Your task to perform on an android device: change text size in settings app Image 0: 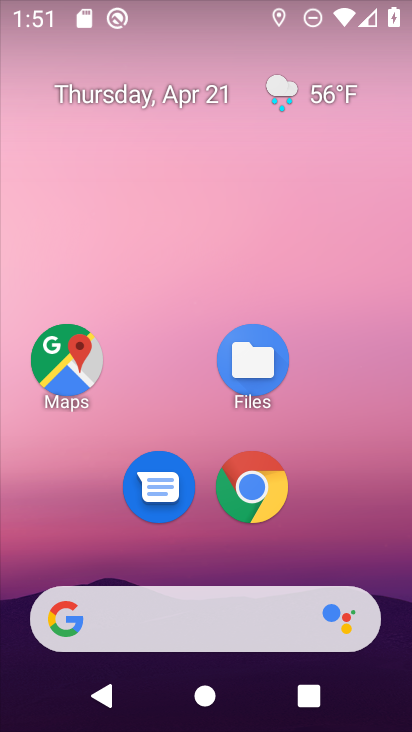
Step 0: drag from (351, 510) to (348, 89)
Your task to perform on an android device: change text size in settings app Image 1: 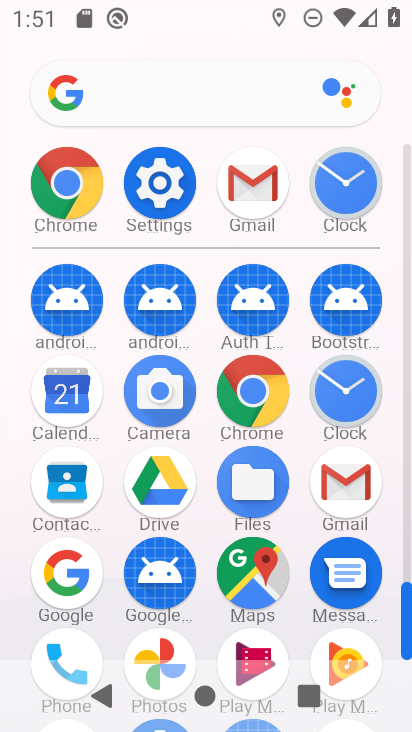
Step 1: click (160, 170)
Your task to perform on an android device: change text size in settings app Image 2: 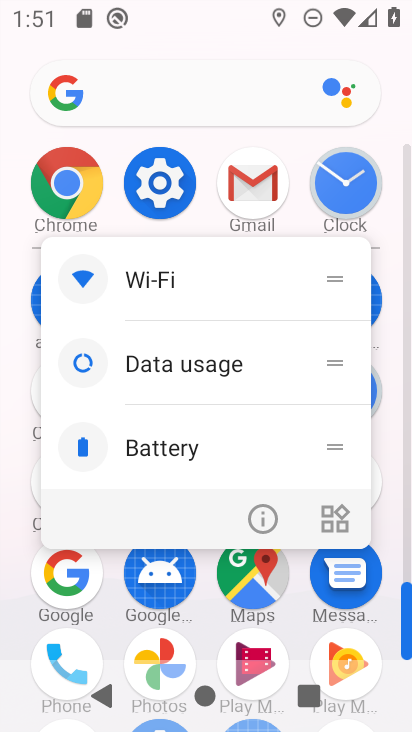
Step 2: click (150, 170)
Your task to perform on an android device: change text size in settings app Image 3: 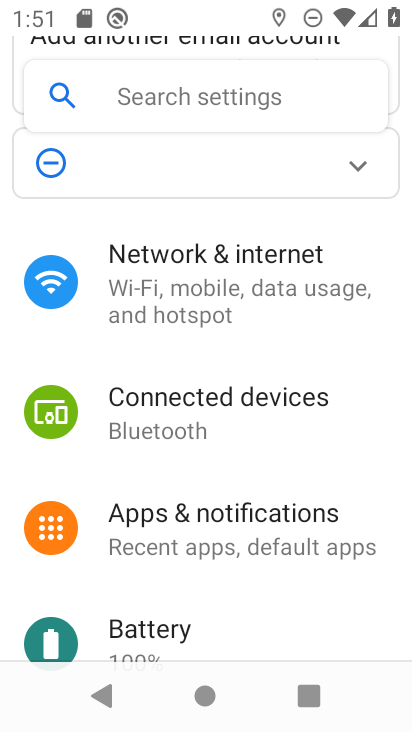
Step 3: drag from (272, 603) to (299, 311)
Your task to perform on an android device: change text size in settings app Image 4: 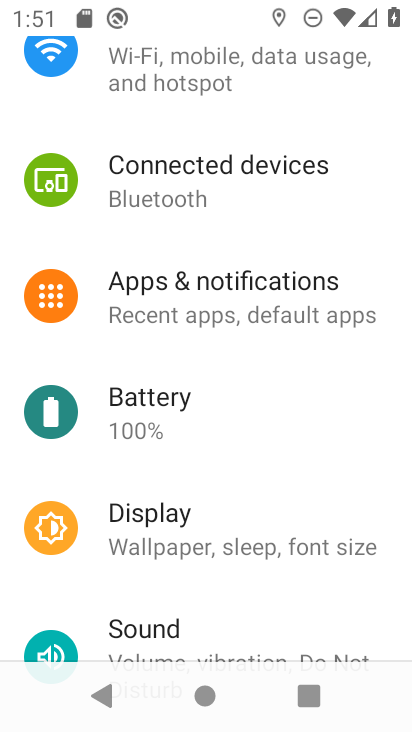
Step 4: click (190, 533)
Your task to perform on an android device: change text size in settings app Image 5: 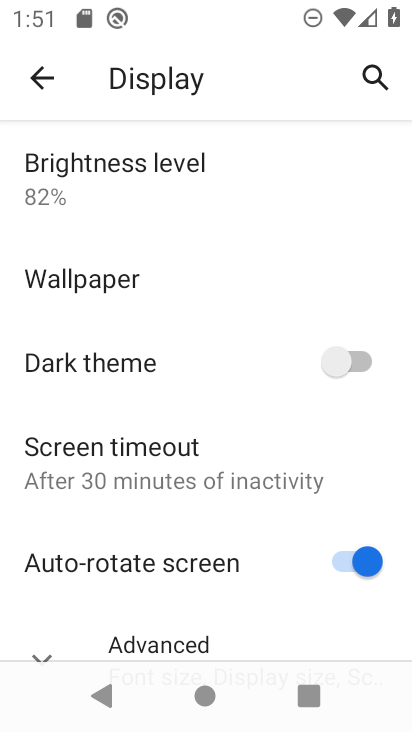
Step 5: drag from (201, 591) to (237, 218)
Your task to perform on an android device: change text size in settings app Image 6: 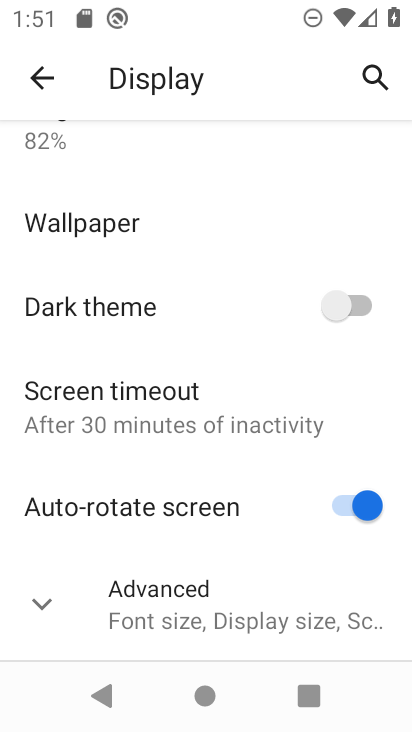
Step 6: click (200, 598)
Your task to perform on an android device: change text size in settings app Image 7: 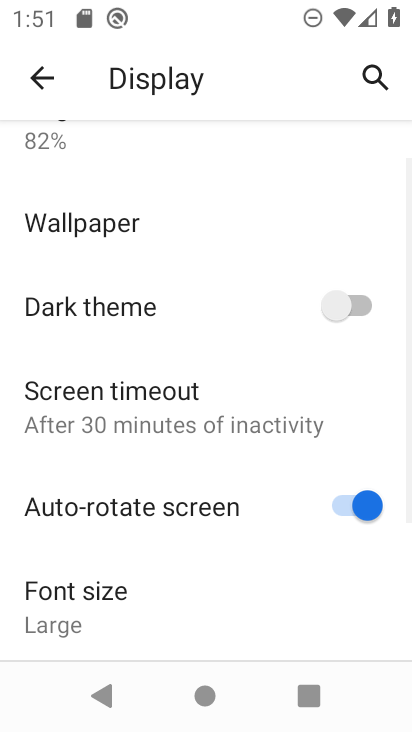
Step 7: click (62, 609)
Your task to perform on an android device: change text size in settings app Image 8: 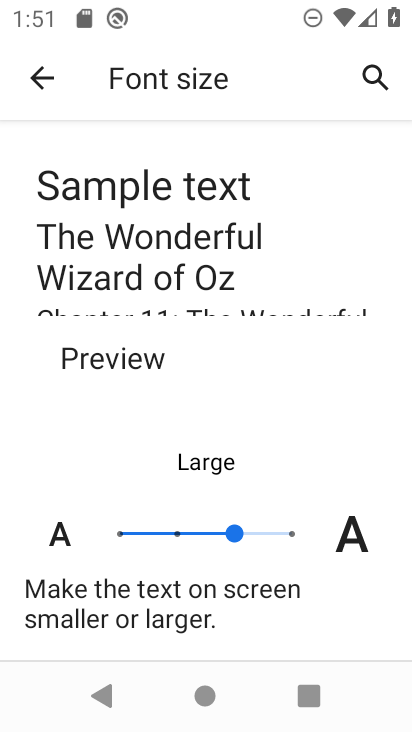
Step 8: click (134, 535)
Your task to perform on an android device: change text size in settings app Image 9: 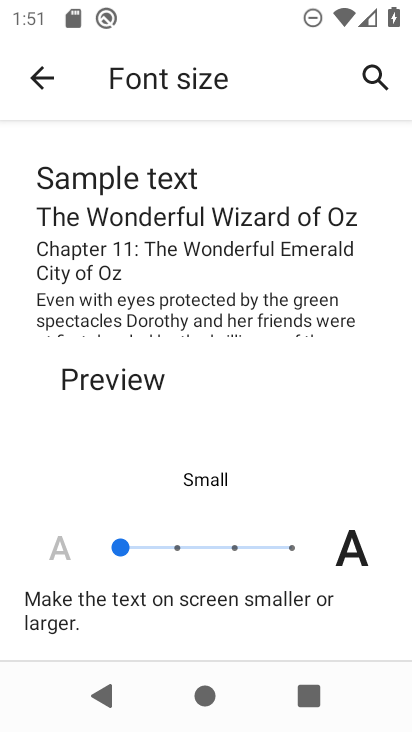
Step 9: task complete